Your task to perform on an android device: Is it going to rain today? Image 0: 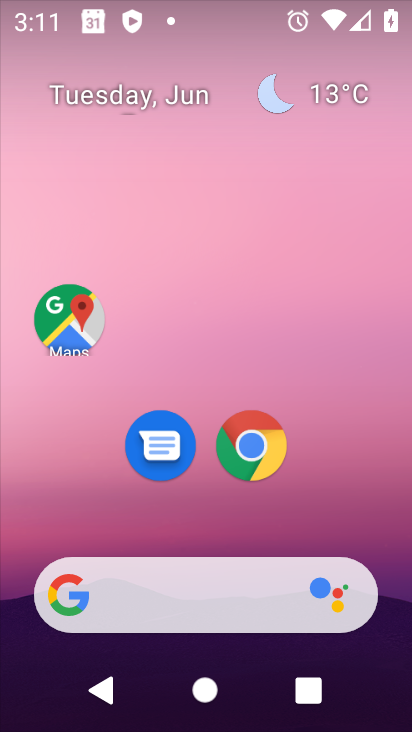
Step 0: click (288, 94)
Your task to perform on an android device: Is it going to rain today? Image 1: 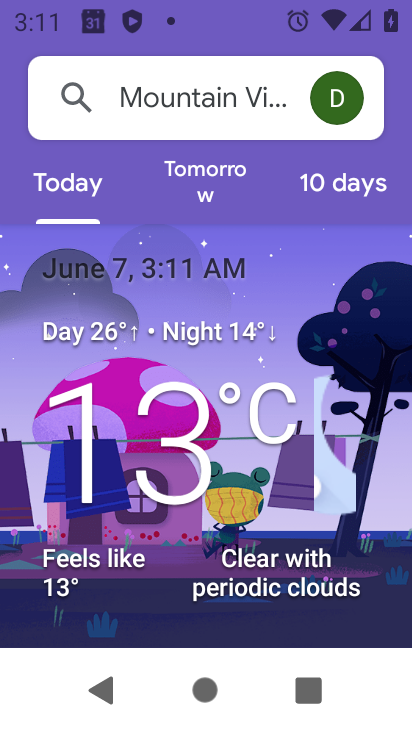
Step 1: task complete